Your task to perform on an android device: turn on data saver in the chrome app Image 0: 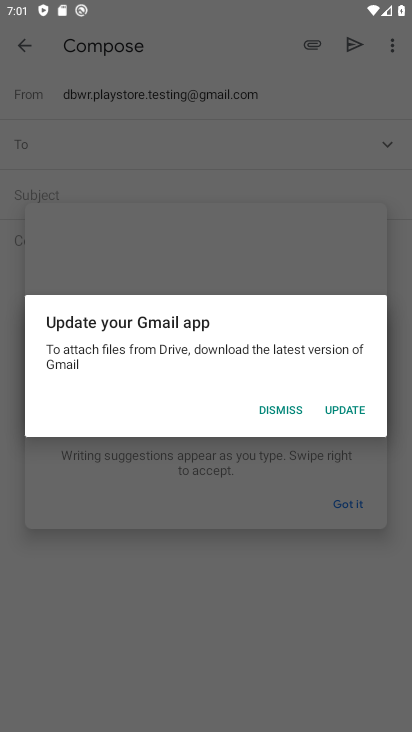
Step 0: press home button
Your task to perform on an android device: turn on data saver in the chrome app Image 1: 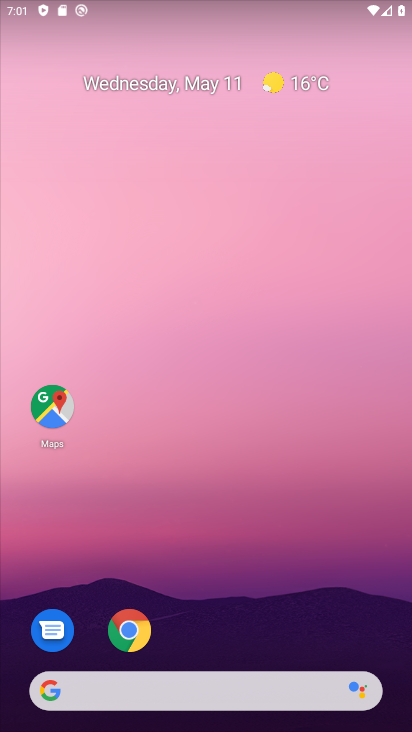
Step 1: drag from (233, 661) to (211, 45)
Your task to perform on an android device: turn on data saver in the chrome app Image 2: 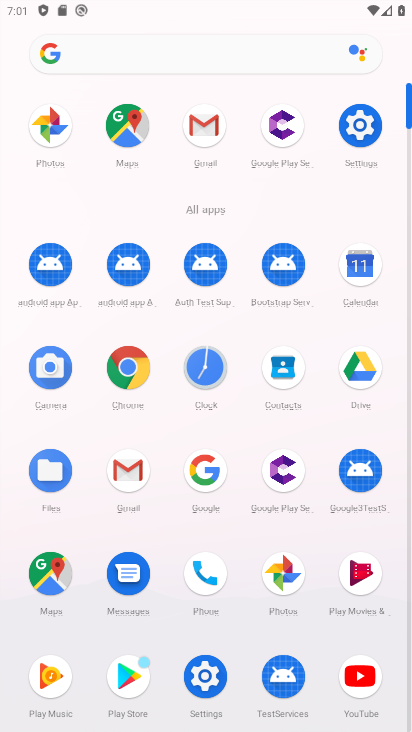
Step 2: click (123, 374)
Your task to perform on an android device: turn on data saver in the chrome app Image 3: 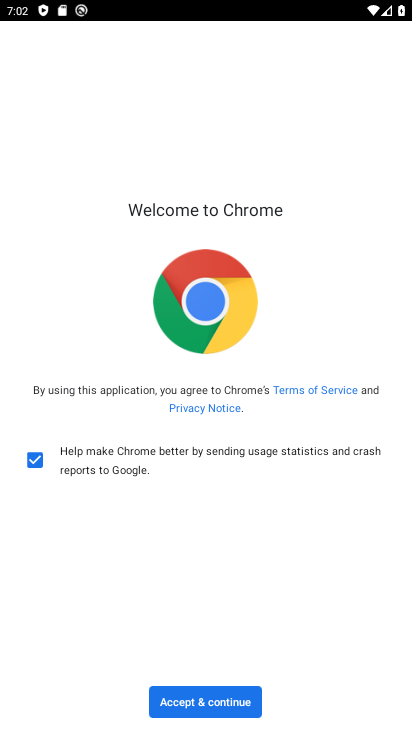
Step 3: click (201, 707)
Your task to perform on an android device: turn on data saver in the chrome app Image 4: 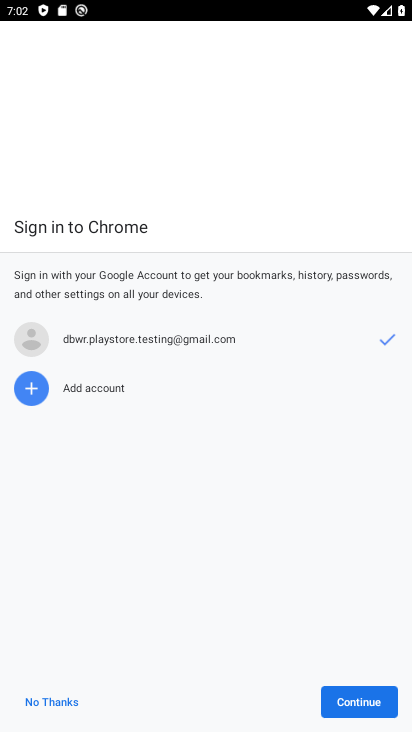
Step 4: click (75, 707)
Your task to perform on an android device: turn on data saver in the chrome app Image 5: 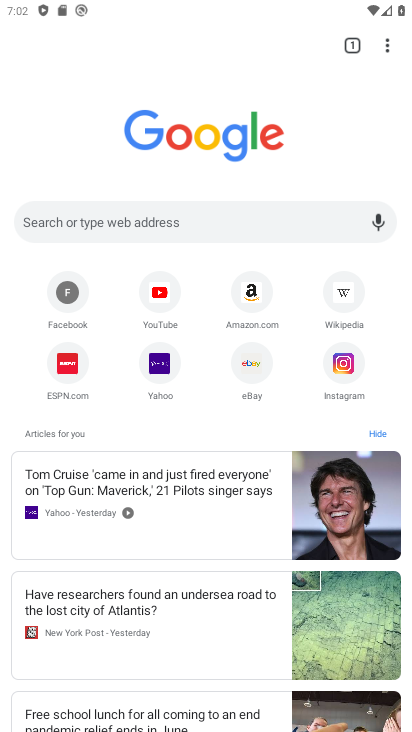
Step 5: drag from (391, 47) to (303, 388)
Your task to perform on an android device: turn on data saver in the chrome app Image 6: 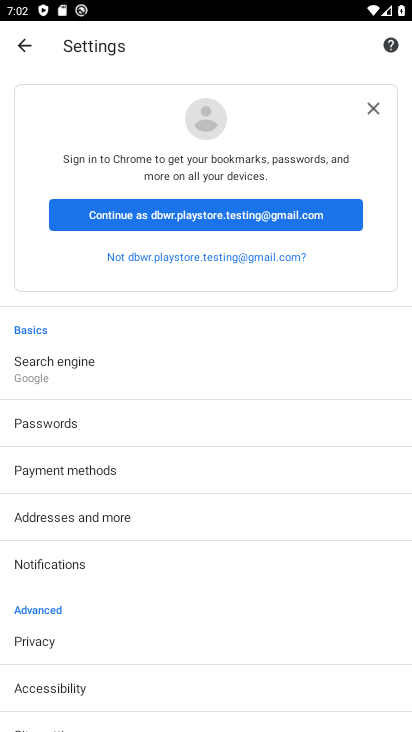
Step 6: drag from (150, 659) to (187, 282)
Your task to perform on an android device: turn on data saver in the chrome app Image 7: 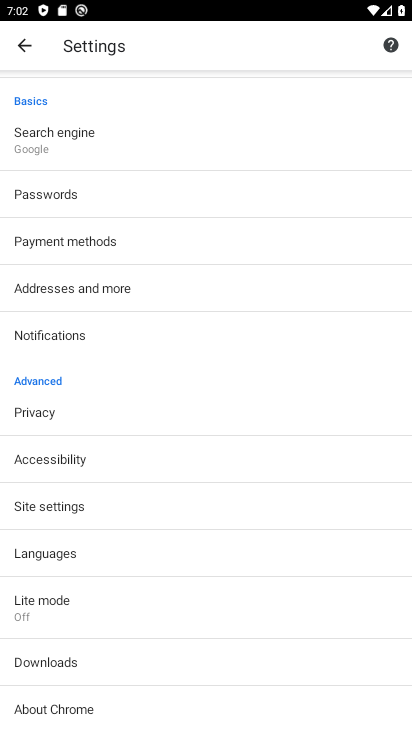
Step 7: click (96, 605)
Your task to perform on an android device: turn on data saver in the chrome app Image 8: 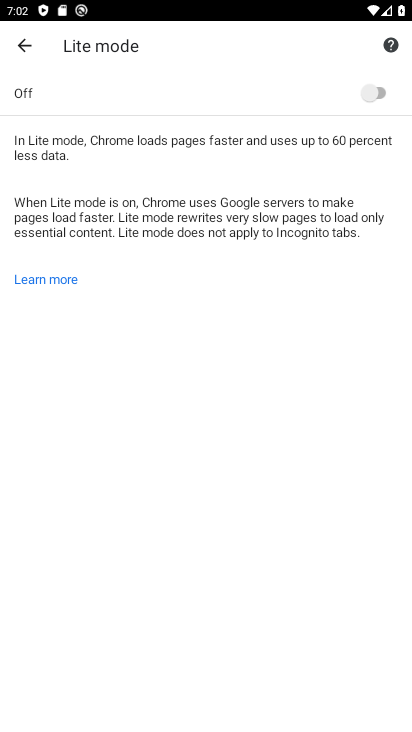
Step 8: click (368, 95)
Your task to perform on an android device: turn on data saver in the chrome app Image 9: 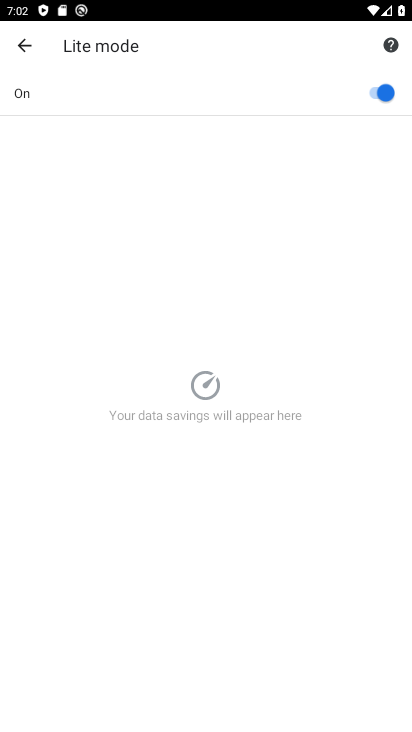
Step 9: task complete